Your task to perform on an android device: Search for energizer triple a on newegg, select the first entry, add it to the cart, then select checkout. Image 0: 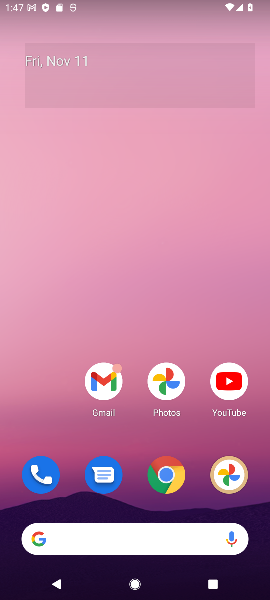
Step 0: drag from (75, 353) to (55, 85)
Your task to perform on an android device: Search for energizer triple a on newegg, select the first entry, add it to the cart, then select checkout. Image 1: 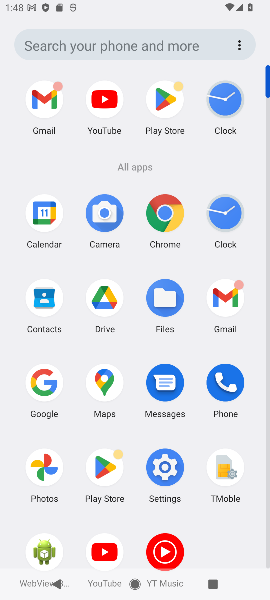
Step 1: click (174, 212)
Your task to perform on an android device: Search for energizer triple a on newegg, select the first entry, add it to the cart, then select checkout. Image 2: 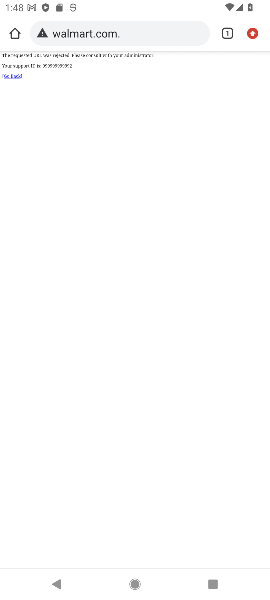
Step 2: click (118, 29)
Your task to perform on an android device: Search for energizer triple a on newegg, select the first entry, add it to the cart, then select checkout. Image 3: 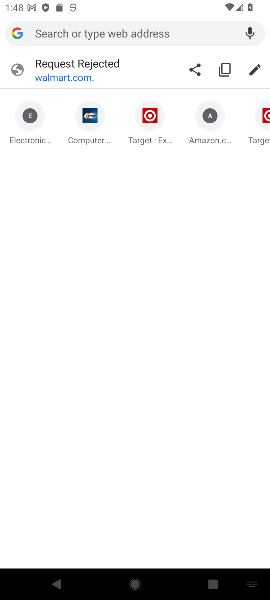
Step 3: type "newegg"
Your task to perform on an android device: Search for energizer triple a on newegg, select the first entry, add it to the cart, then select checkout. Image 4: 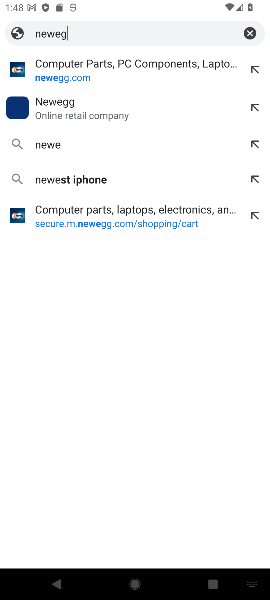
Step 4: press enter
Your task to perform on an android device: Search for energizer triple a on newegg, select the first entry, add it to the cart, then select checkout. Image 5: 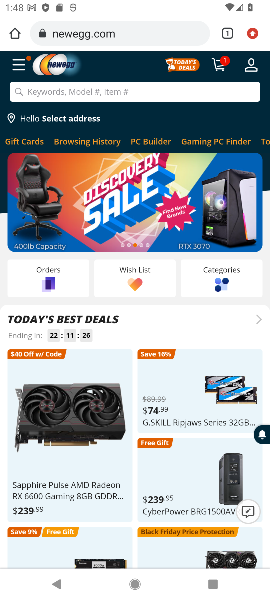
Step 5: click (41, 88)
Your task to perform on an android device: Search for energizer triple a on newegg, select the first entry, add it to the cart, then select checkout. Image 6: 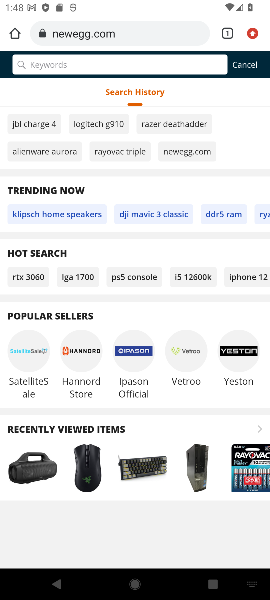
Step 6: type "energizer triple "
Your task to perform on an android device: Search for energizer triple a on newegg, select the first entry, add it to the cart, then select checkout. Image 7: 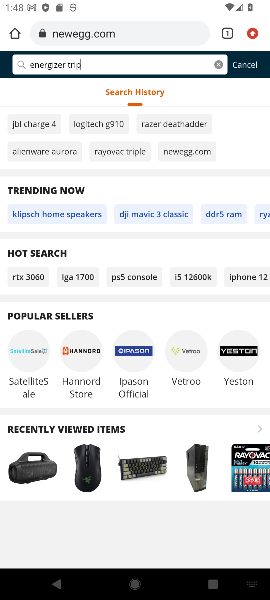
Step 7: press enter
Your task to perform on an android device: Search for energizer triple a on newegg, select the first entry, add it to the cart, then select checkout. Image 8: 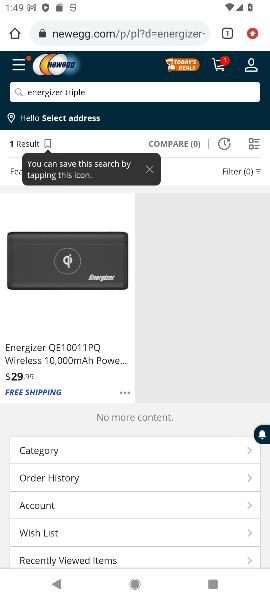
Step 8: click (56, 349)
Your task to perform on an android device: Search for energizer triple a on newegg, select the first entry, add it to the cart, then select checkout. Image 9: 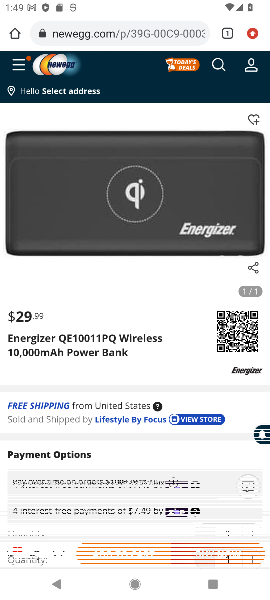
Step 9: click (56, 352)
Your task to perform on an android device: Search for energizer triple a on newegg, select the first entry, add it to the cart, then select checkout. Image 10: 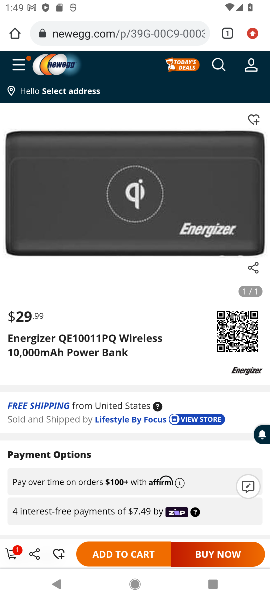
Step 10: click (109, 556)
Your task to perform on an android device: Search for energizer triple a on newegg, select the first entry, add it to the cart, then select checkout. Image 11: 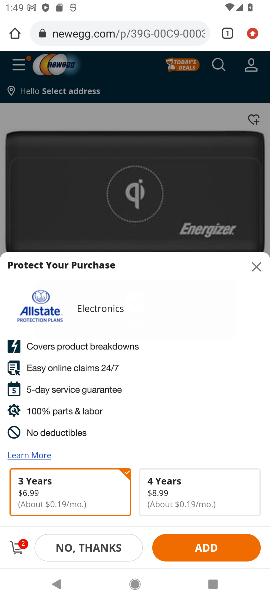
Step 11: click (19, 539)
Your task to perform on an android device: Search for energizer triple a on newegg, select the first entry, add it to the cart, then select checkout. Image 12: 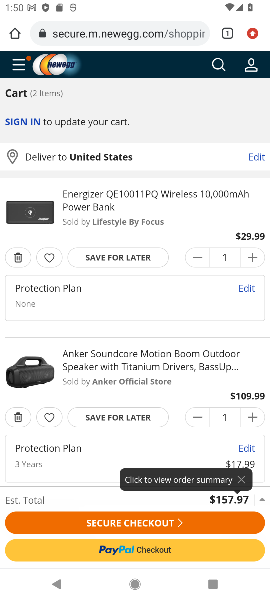
Step 12: click (116, 522)
Your task to perform on an android device: Search for energizer triple a on newegg, select the first entry, add it to the cart, then select checkout. Image 13: 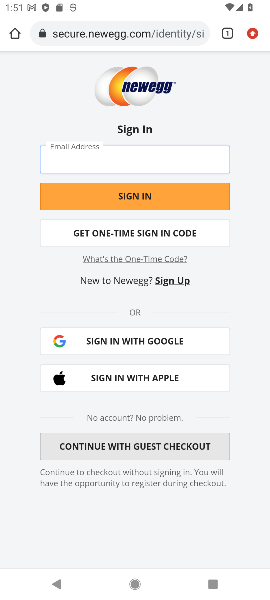
Step 13: task complete